Your task to perform on an android device: turn on priority inbox in the gmail app Image 0: 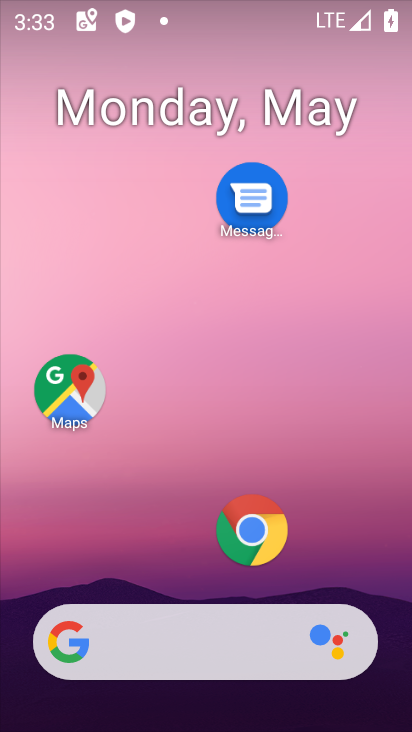
Step 0: drag from (157, 501) to (185, 96)
Your task to perform on an android device: turn on priority inbox in the gmail app Image 1: 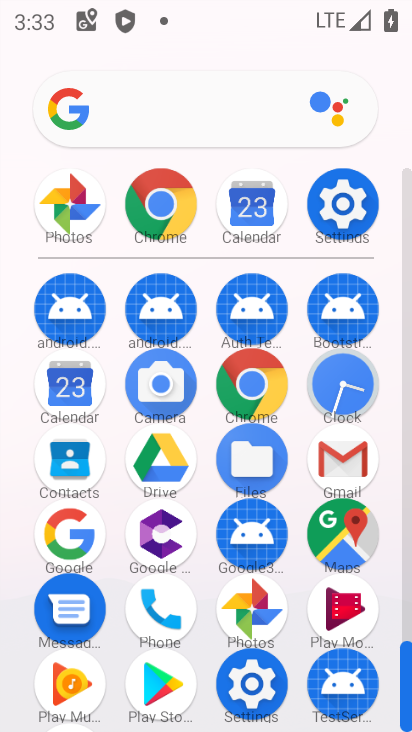
Step 1: click (343, 462)
Your task to perform on an android device: turn on priority inbox in the gmail app Image 2: 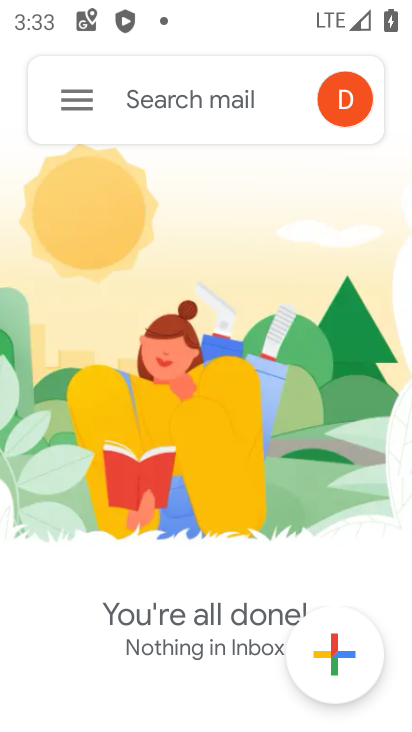
Step 2: click (60, 104)
Your task to perform on an android device: turn on priority inbox in the gmail app Image 3: 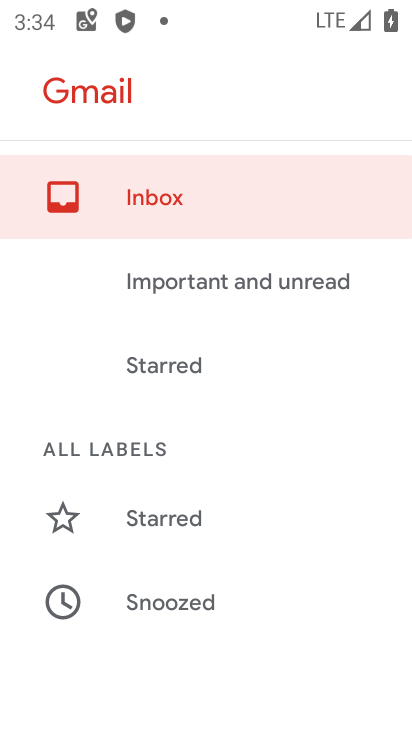
Step 3: drag from (132, 641) to (230, 46)
Your task to perform on an android device: turn on priority inbox in the gmail app Image 4: 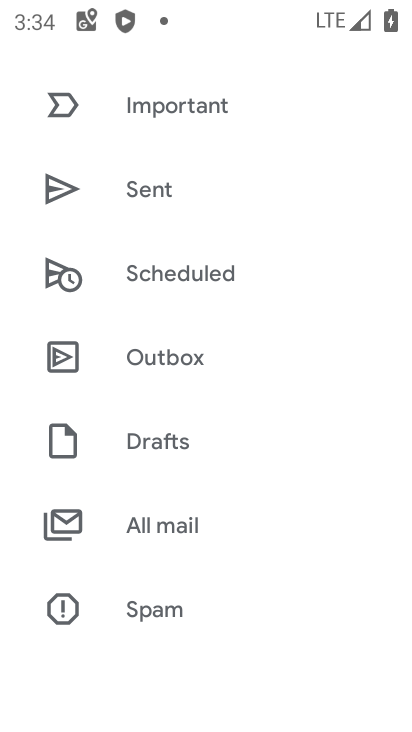
Step 4: drag from (163, 529) to (235, 30)
Your task to perform on an android device: turn on priority inbox in the gmail app Image 5: 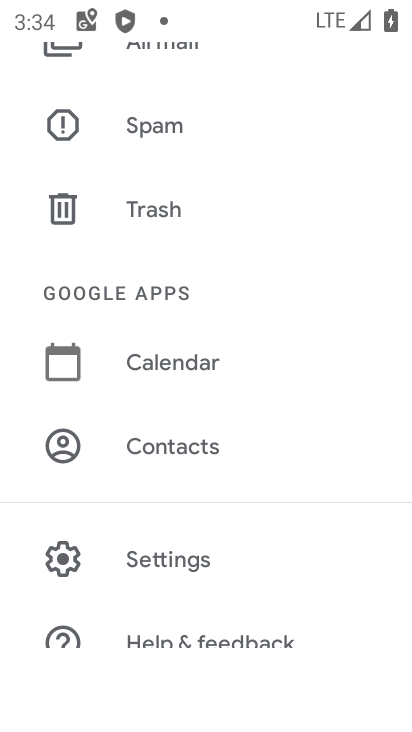
Step 5: click (154, 550)
Your task to perform on an android device: turn on priority inbox in the gmail app Image 6: 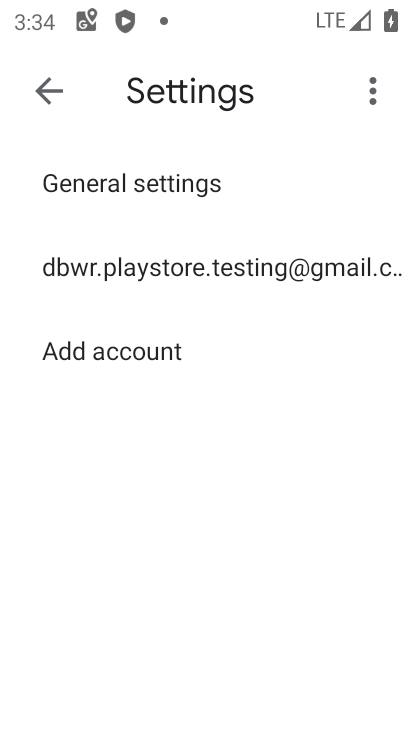
Step 6: click (125, 273)
Your task to perform on an android device: turn on priority inbox in the gmail app Image 7: 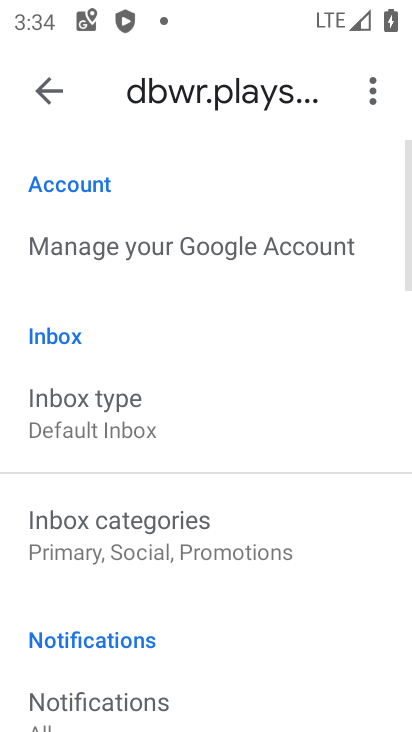
Step 7: click (97, 423)
Your task to perform on an android device: turn on priority inbox in the gmail app Image 8: 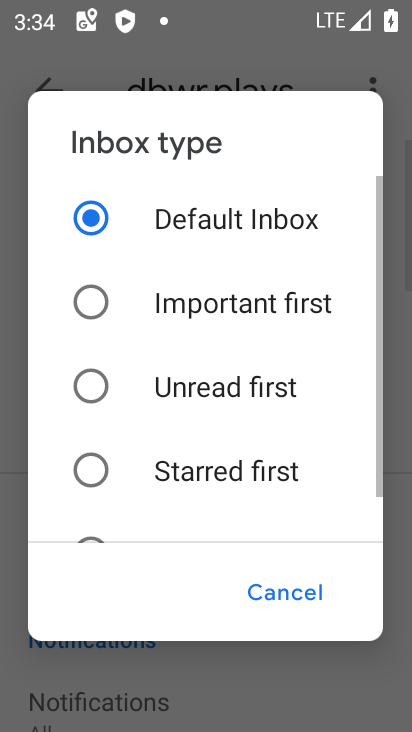
Step 8: drag from (159, 509) to (215, 91)
Your task to perform on an android device: turn on priority inbox in the gmail app Image 9: 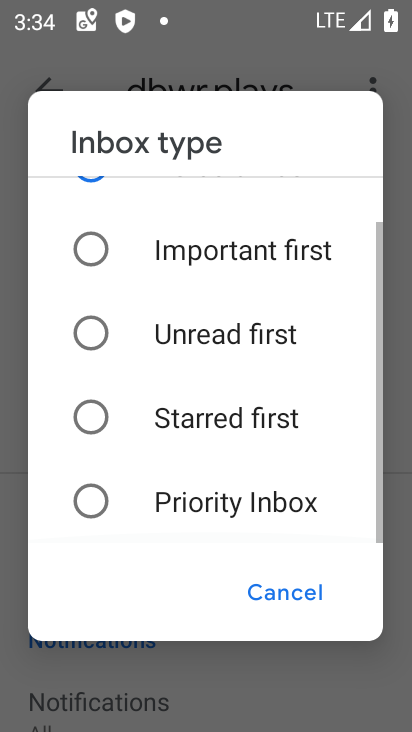
Step 9: click (167, 503)
Your task to perform on an android device: turn on priority inbox in the gmail app Image 10: 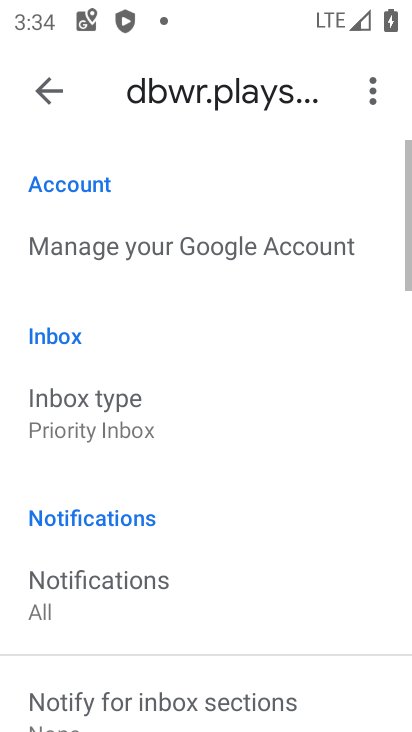
Step 10: task complete